Your task to perform on an android device: turn off improve location accuracy Image 0: 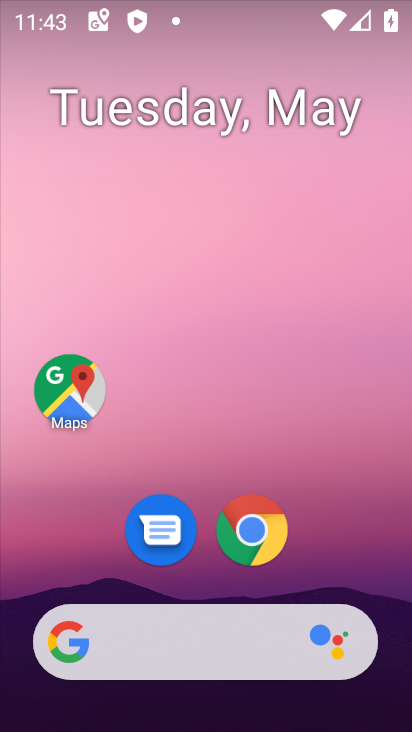
Step 0: drag from (214, 577) to (218, 229)
Your task to perform on an android device: turn off improve location accuracy Image 1: 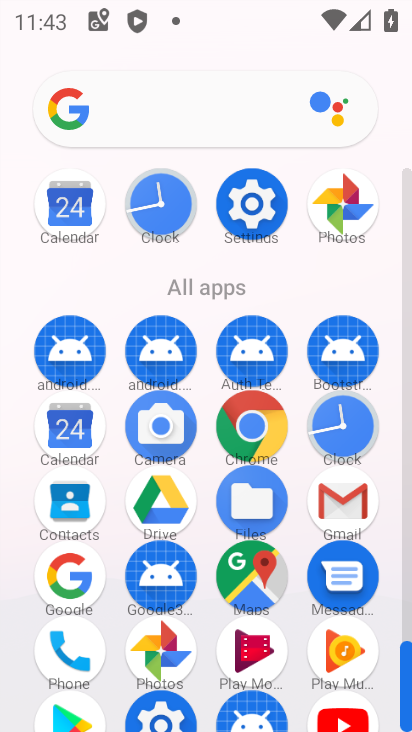
Step 1: click (255, 202)
Your task to perform on an android device: turn off improve location accuracy Image 2: 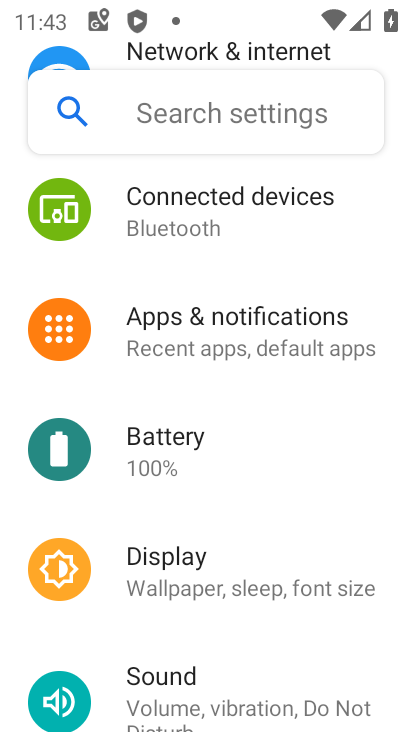
Step 2: drag from (194, 640) to (281, 218)
Your task to perform on an android device: turn off improve location accuracy Image 3: 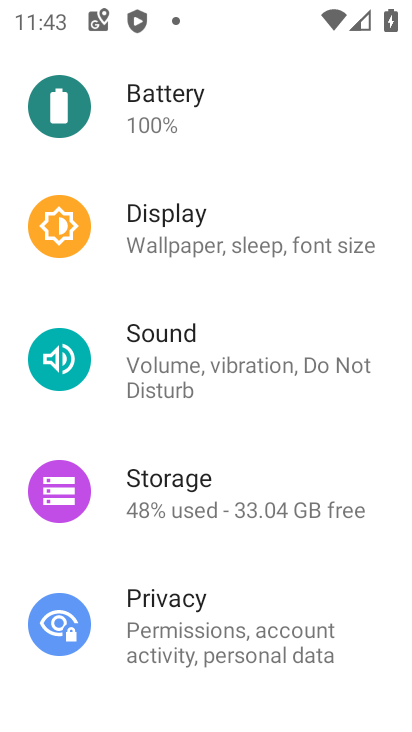
Step 3: drag from (210, 676) to (307, 236)
Your task to perform on an android device: turn off improve location accuracy Image 4: 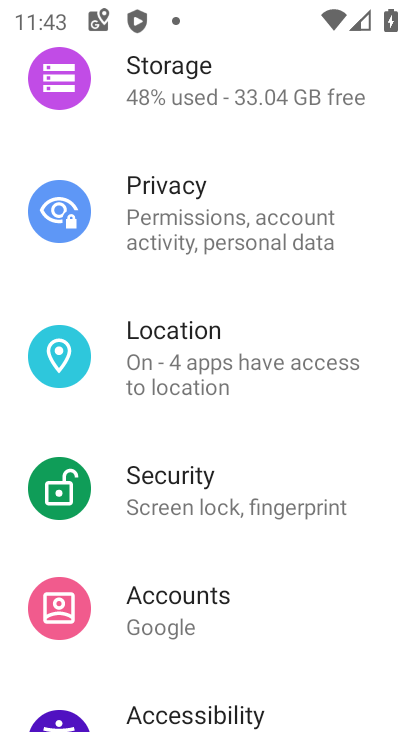
Step 4: click (226, 349)
Your task to perform on an android device: turn off improve location accuracy Image 5: 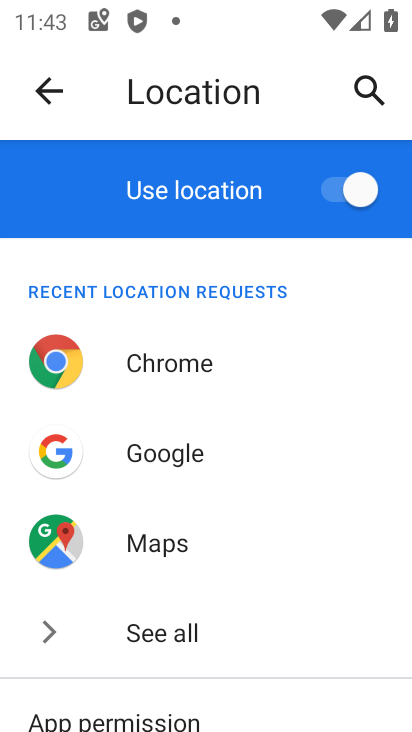
Step 5: drag from (224, 671) to (318, 278)
Your task to perform on an android device: turn off improve location accuracy Image 6: 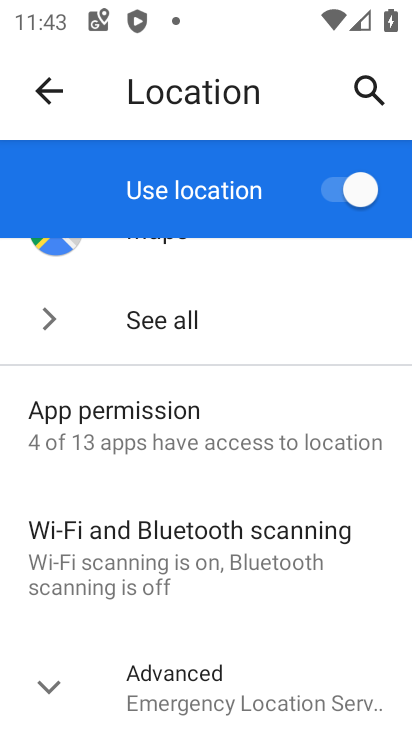
Step 6: drag from (66, 641) to (120, 404)
Your task to perform on an android device: turn off improve location accuracy Image 7: 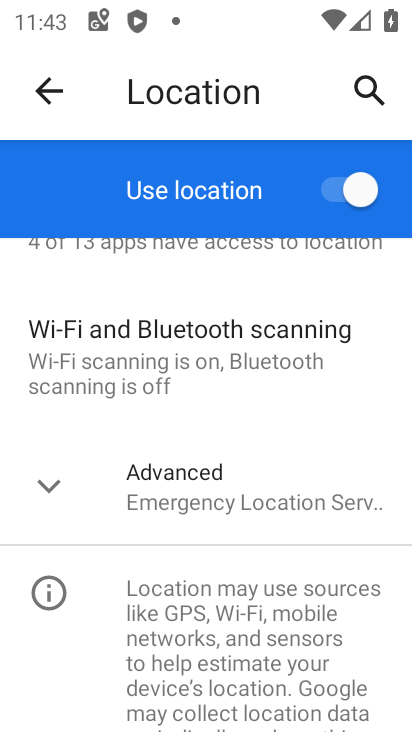
Step 7: click (54, 489)
Your task to perform on an android device: turn off improve location accuracy Image 8: 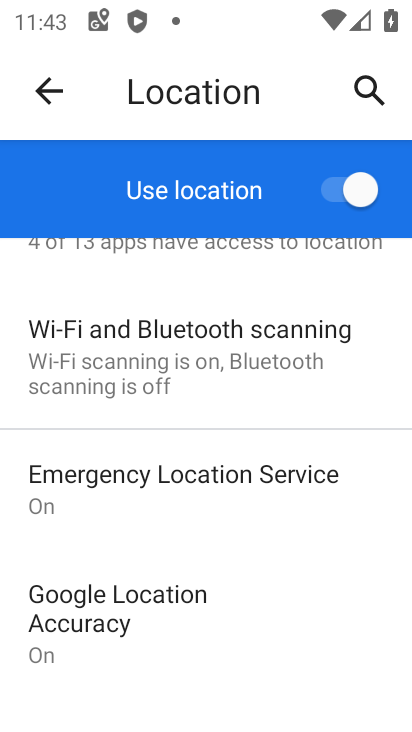
Step 8: drag from (174, 648) to (280, 338)
Your task to perform on an android device: turn off improve location accuracy Image 9: 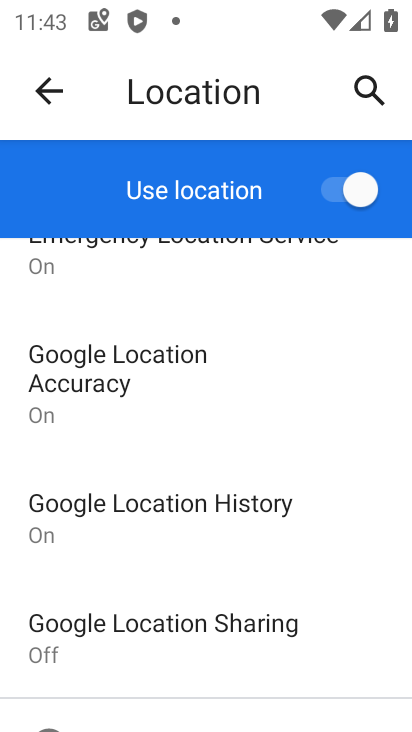
Step 9: click (152, 347)
Your task to perform on an android device: turn off improve location accuracy Image 10: 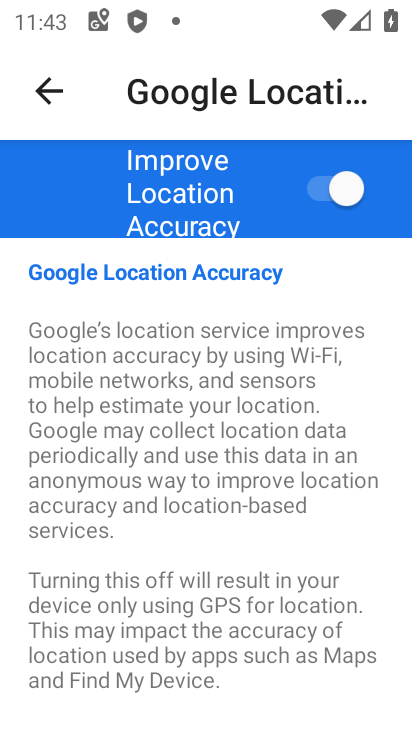
Step 10: click (312, 194)
Your task to perform on an android device: turn off improve location accuracy Image 11: 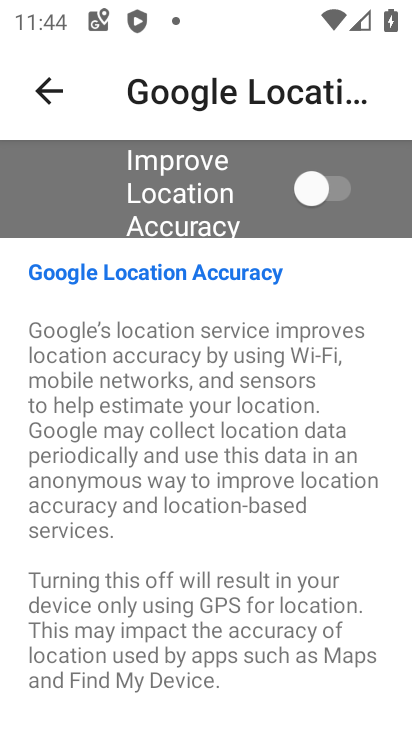
Step 11: task complete